Your task to perform on an android device: change your default location settings in chrome Image 0: 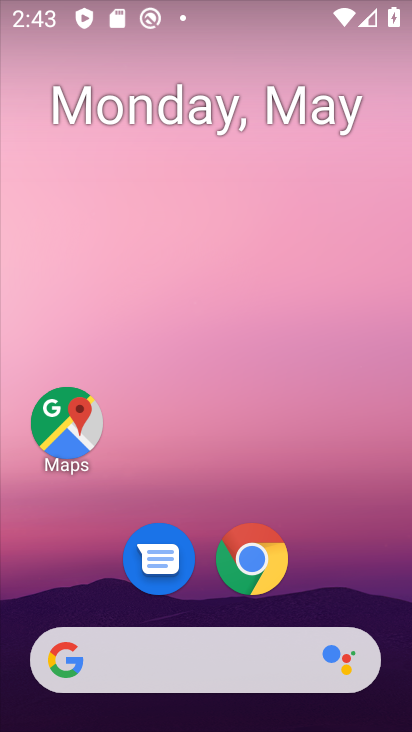
Step 0: drag from (332, 560) to (234, 13)
Your task to perform on an android device: change your default location settings in chrome Image 1: 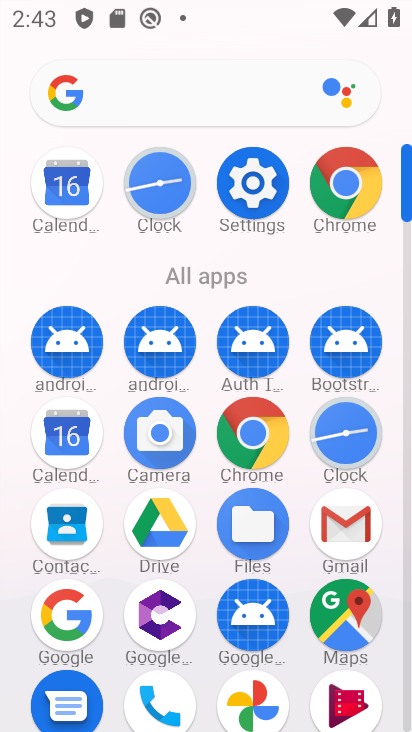
Step 1: drag from (9, 561) to (13, 245)
Your task to perform on an android device: change your default location settings in chrome Image 2: 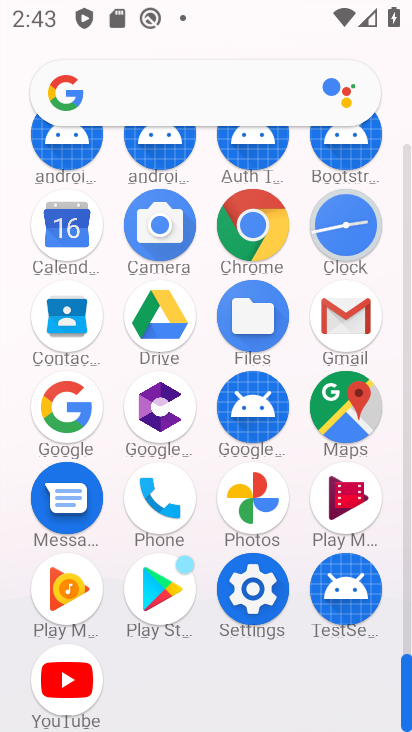
Step 2: click (246, 224)
Your task to perform on an android device: change your default location settings in chrome Image 3: 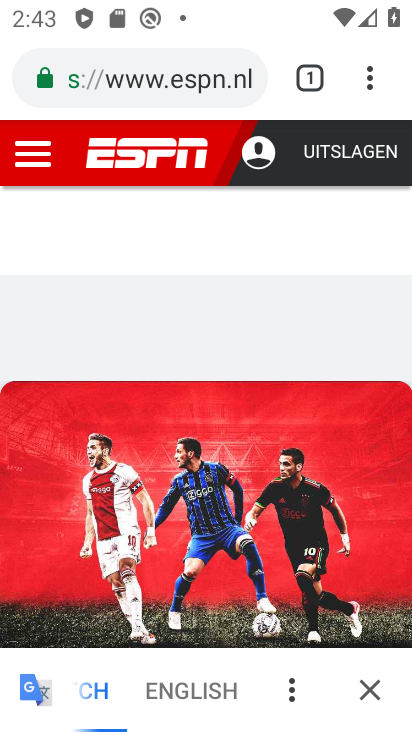
Step 3: drag from (366, 72) to (185, 600)
Your task to perform on an android device: change your default location settings in chrome Image 4: 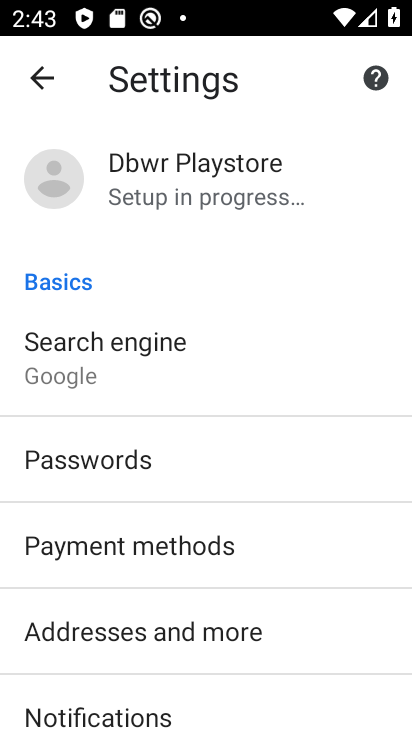
Step 4: drag from (249, 564) to (258, 173)
Your task to perform on an android device: change your default location settings in chrome Image 5: 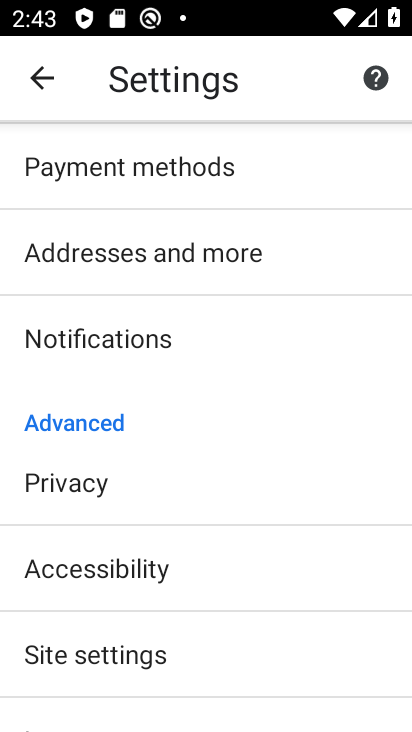
Step 5: drag from (270, 516) to (266, 137)
Your task to perform on an android device: change your default location settings in chrome Image 6: 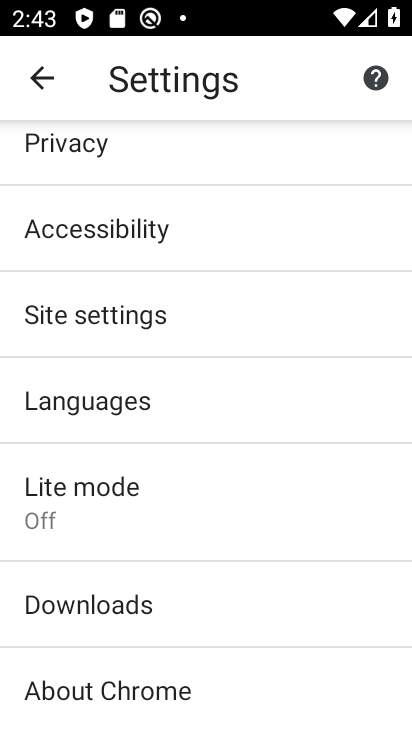
Step 6: drag from (267, 589) to (293, 191)
Your task to perform on an android device: change your default location settings in chrome Image 7: 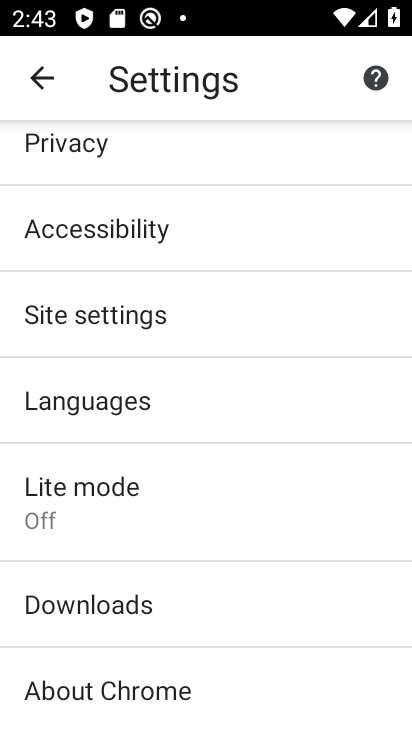
Step 7: drag from (249, 192) to (272, 568)
Your task to perform on an android device: change your default location settings in chrome Image 8: 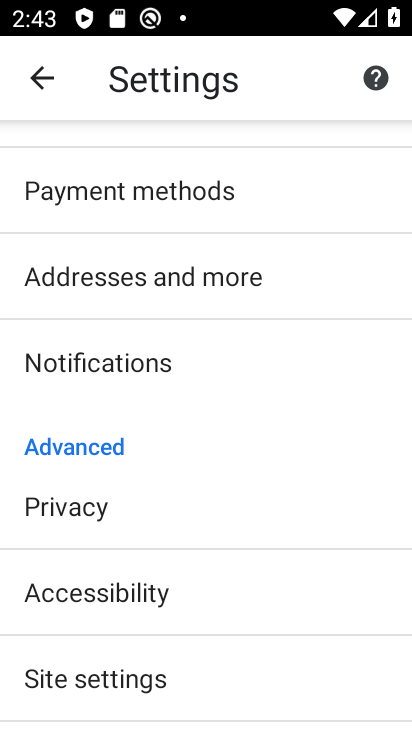
Step 8: drag from (302, 249) to (325, 635)
Your task to perform on an android device: change your default location settings in chrome Image 9: 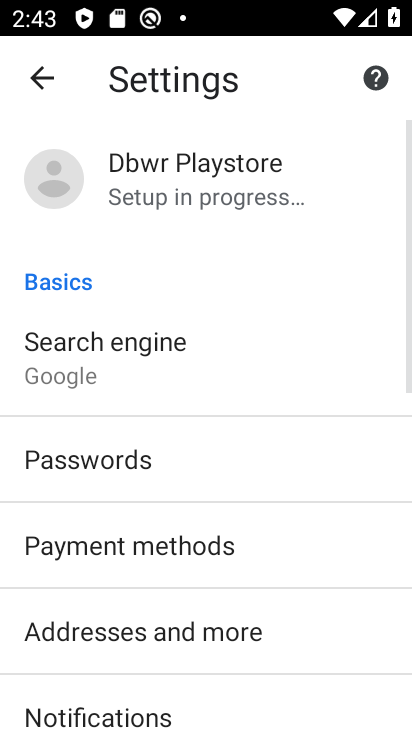
Step 9: drag from (293, 609) to (289, 152)
Your task to perform on an android device: change your default location settings in chrome Image 10: 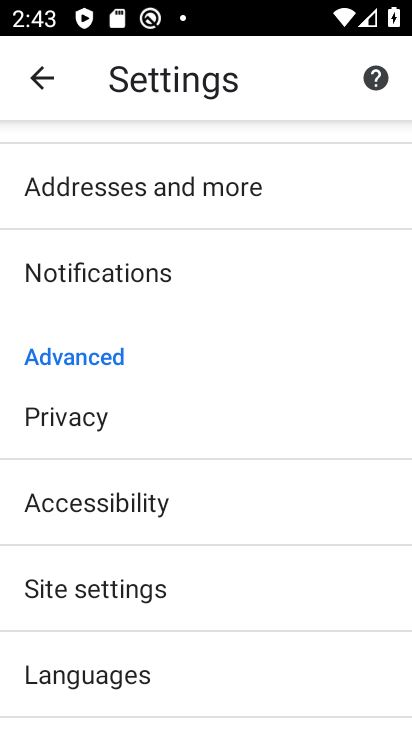
Step 10: drag from (272, 587) to (278, 99)
Your task to perform on an android device: change your default location settings in chrome Image 11: 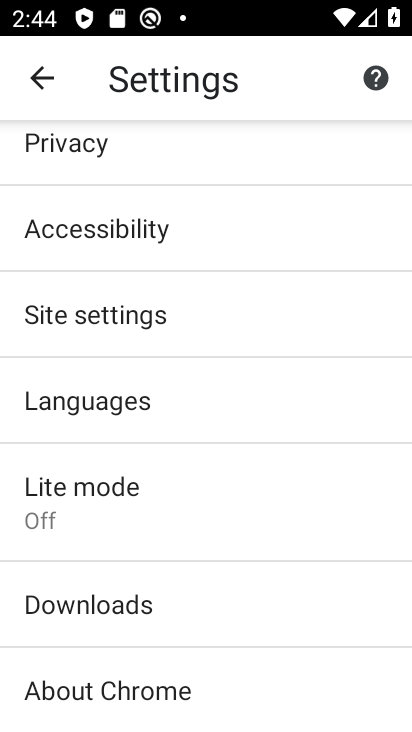
Step 11: click (87, 316)
Your task to perform on an android device: change your default location settings in chrome Image 12: 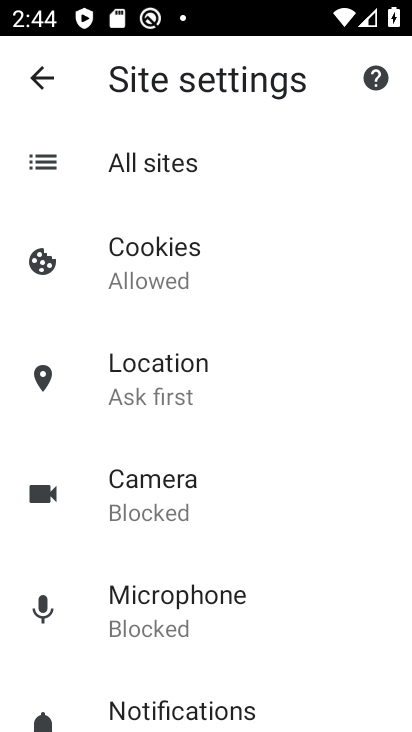
Step 12: drag from (258, 675) to (248, 245)
Your task to perform on an android device: change your default location settings in chrome Image 13: 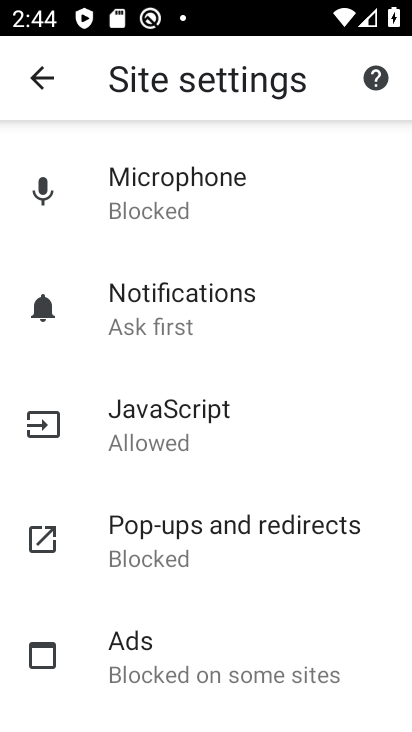
Step 13: drag from (274, 238) to (285, 190)
Your task to perform on an android device: change your default location settings in chrome Image 14: 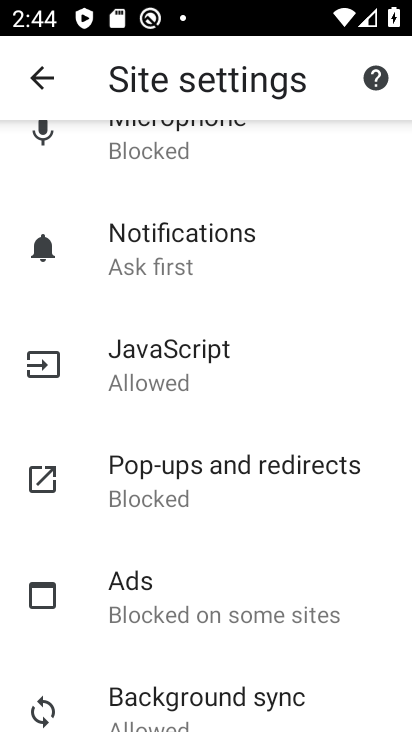
Step 14: drag from (283, 208) to (257, 603)
Your task to perform on an android device: change your default location settings in chrome Image 15: 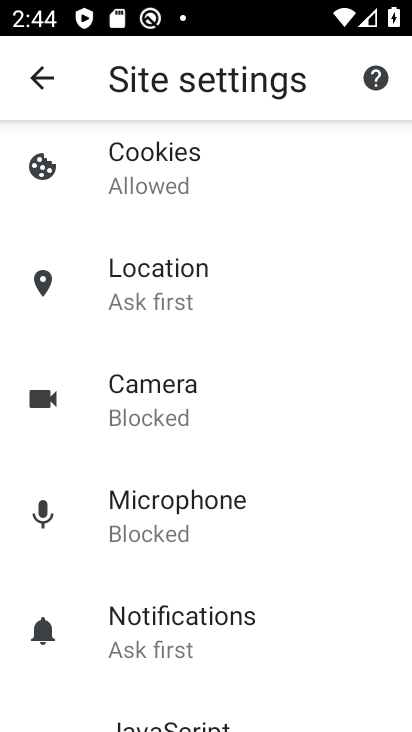
Step 15: drag from (270, 248) to (262, 608)
Your task to perform on an android device: change your default location settings in chrome Image 16: 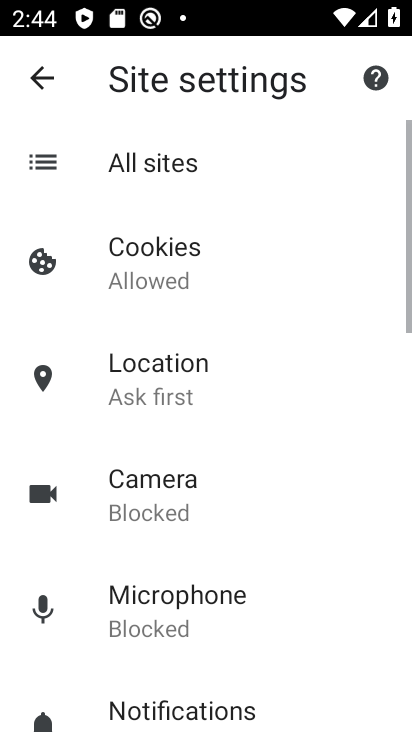
Step 16: drag from (268, 540) to (269, 157)
Your task to perform on an android device: change your default location settings in chrome Image 17: 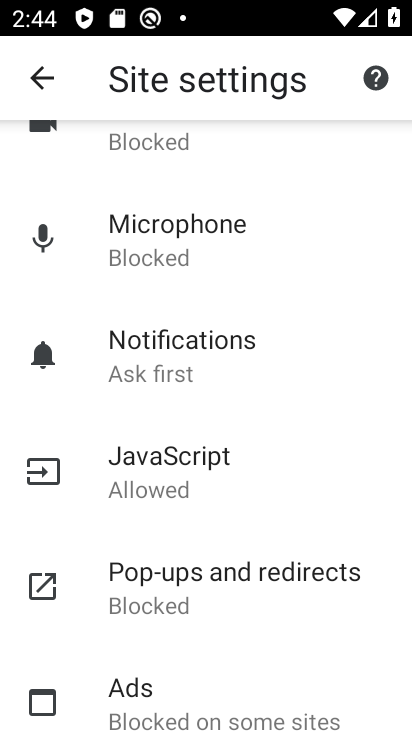
Step 17: drag from (294, 584) to (280, 148)
Your task to perform on an android device: change your default location settings in chrome Image 18: 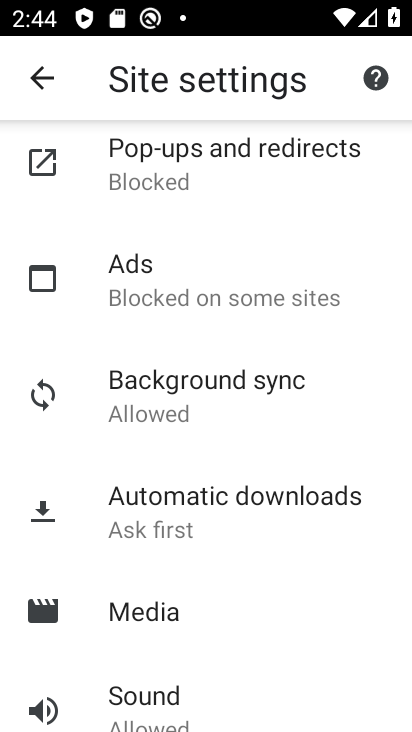
Step 18: drag from (292, 542) to (305, 143)
Your task to perform on an android device: change your default location settings in chrome Image 19: 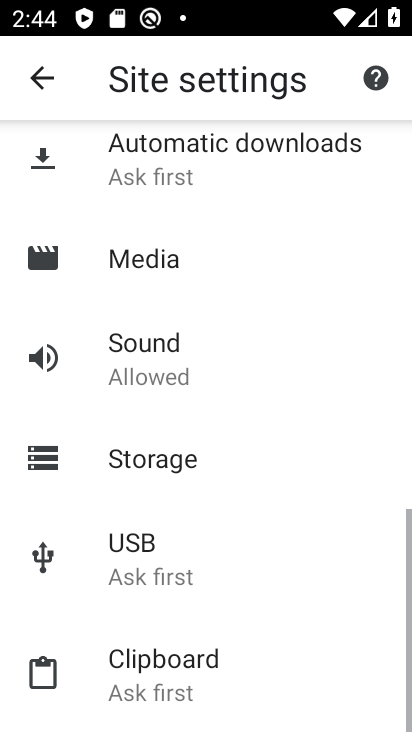
Step 19: drag from (270, 574) to (273, 198)
Your task to perform on an android device: change your default location settings in chrome Image 20: 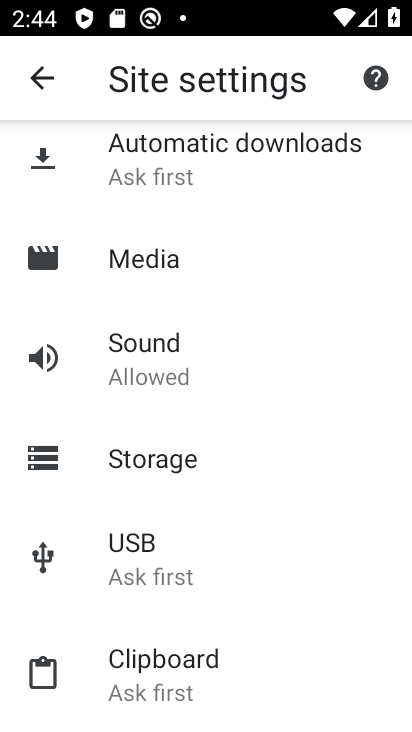
Step 20: drag from (275, 195) to (280, 649)
Your task to perform on an android device: change your default location settings in chrome Image 21: 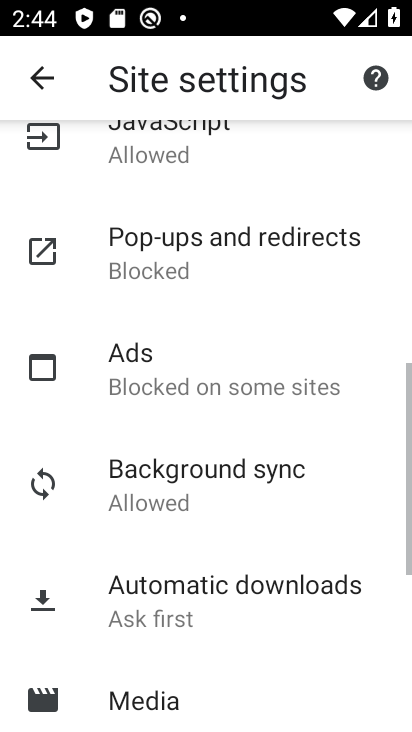
Step 21: drag from (288, 253) to (280, 644)
Your task to perform on an android device: change your default location settings in chrome Image 22: 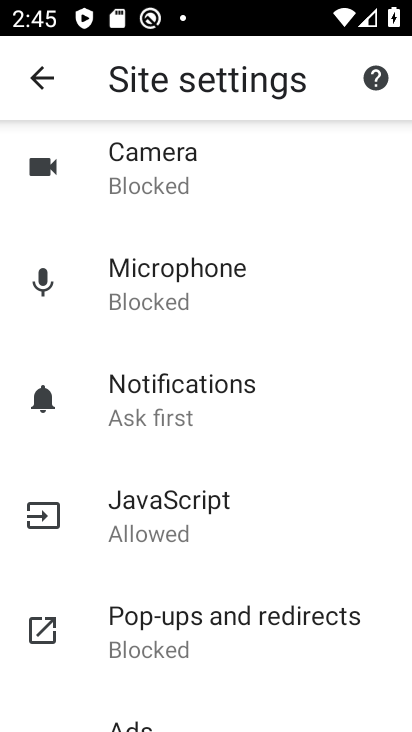
Step 22: drag from (299, 229) to (293, 582)
Your task to perform on an android device: change your default location settings in chrome Image 23: 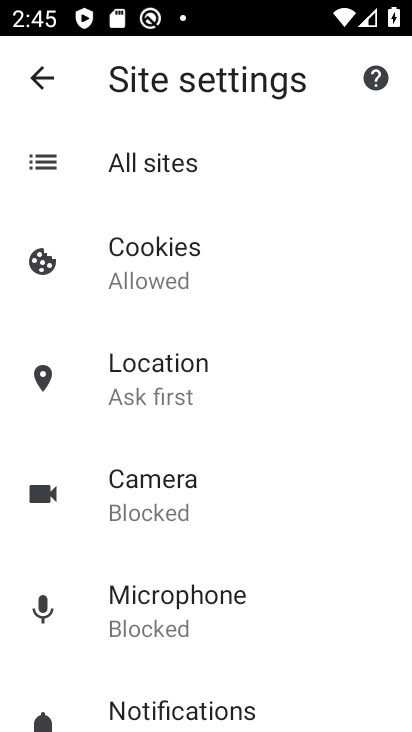
Step 23: click (216, 376)
Your task to perform on an android device: change your default location settings in chrome Image 24: 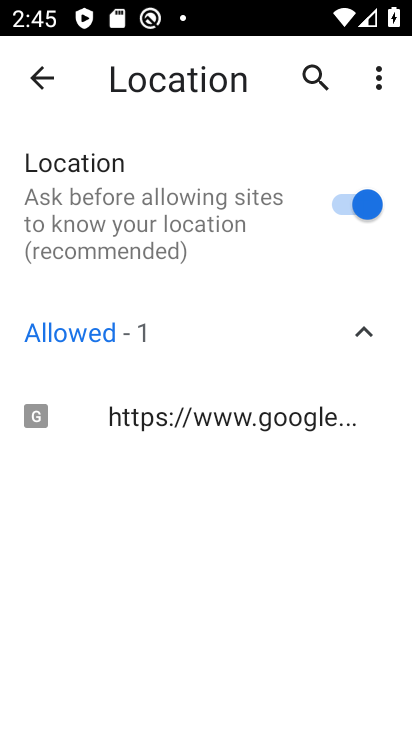
Step 24: task complete